Your task to perform on an android device: Open location settings Image 0: 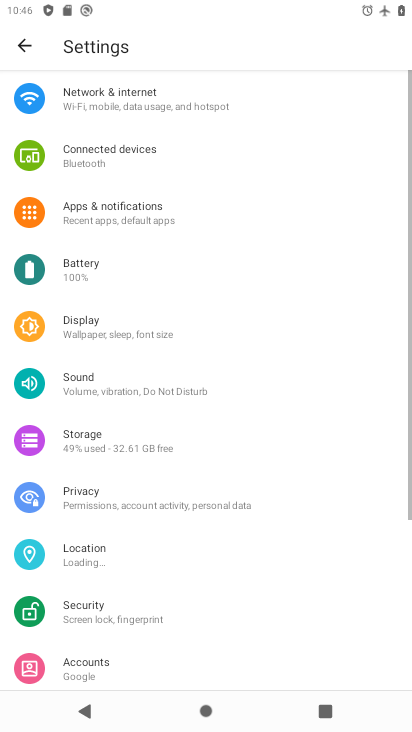
Step 0: press home button
Your task to perform on an android device: Open location settings Image 1: 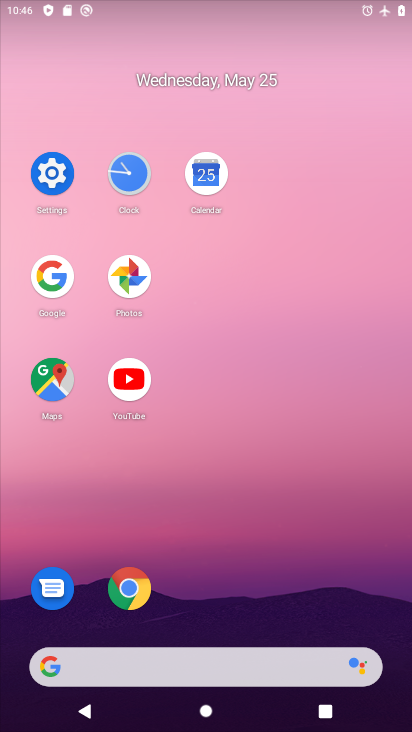
Step 1: click (60, 166)
Your task to perform on an android device: Open location settings Image 2: 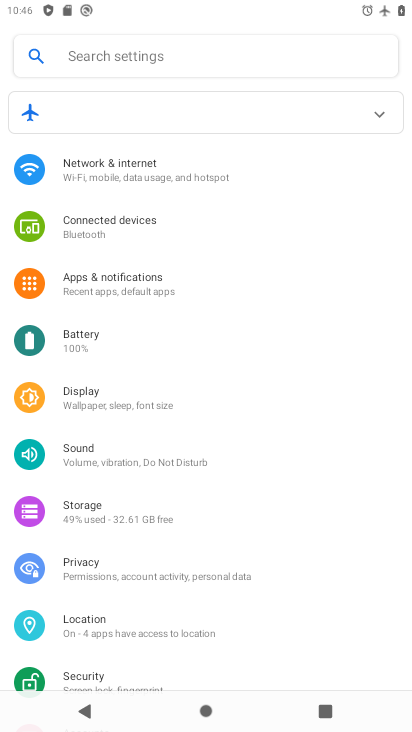
Step 2: click (178, 630)
Your task to perform on an android device: Open location settings Image 3: 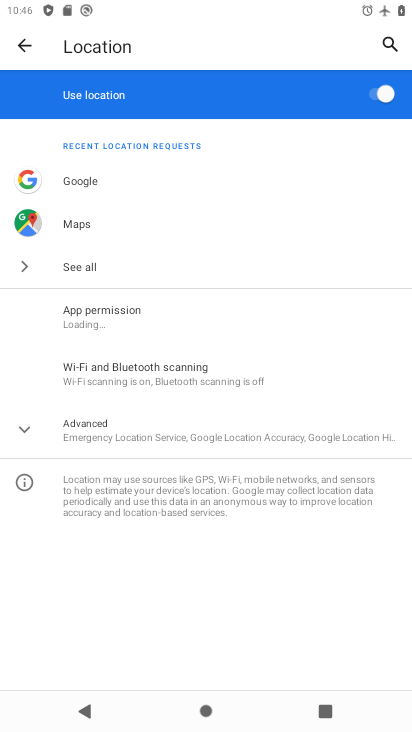
Step 3: task complete